Your task to perform on an android device: turn off picture-in-picture Image 0: 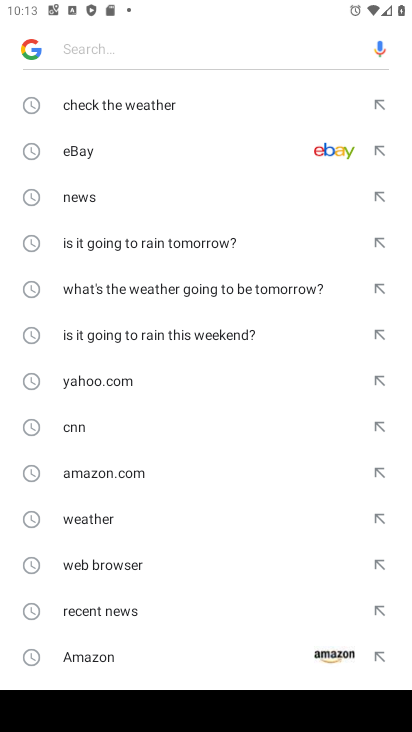
Step 0: press home button
Your task to perform on an android device: turn off picture-in-picture Image 1: 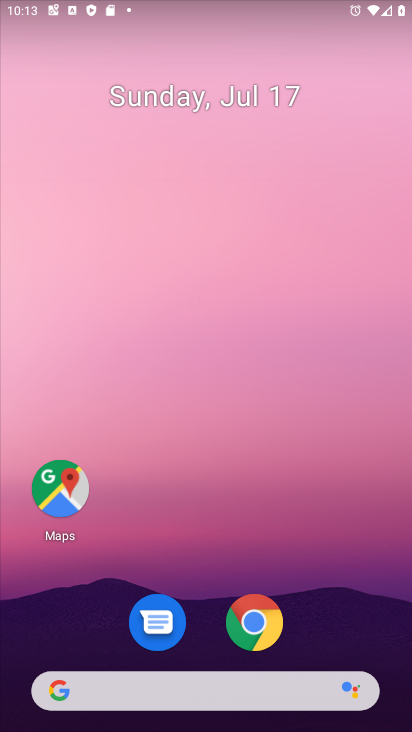
Step 1: click (269, 621)
Your task to perform on an android device: turn off picture-in-picture Image 2: 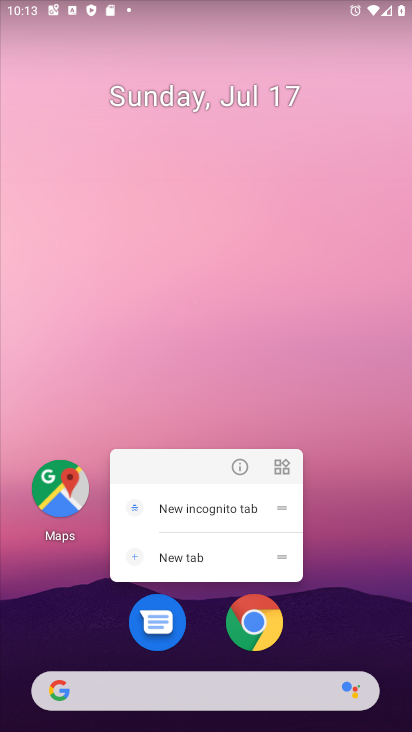
Step 2: click (241, 462)
Your task to perform on an android device: turn off picture-in-picture Image 3: 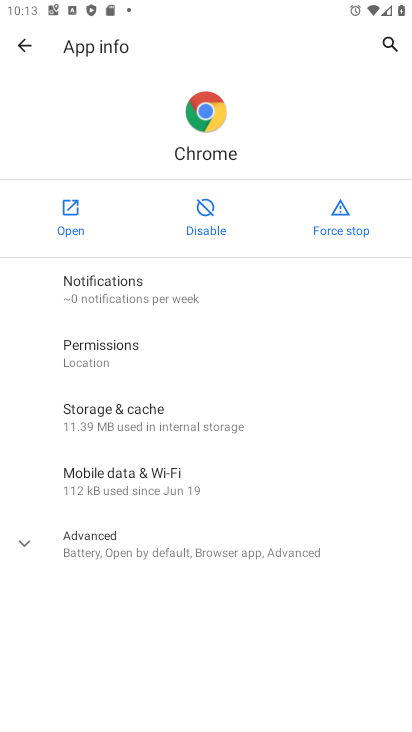
Step 3: click (111, 549)
Your task to perform on an android device: turn off picture-in-picture Image 4: 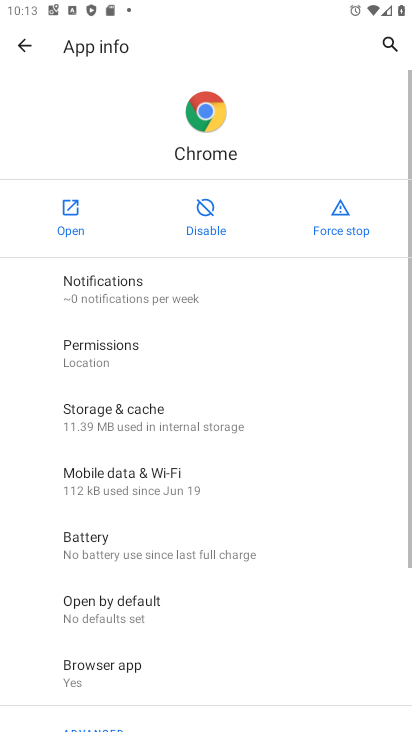
Step 4: drag from (324, 666) to (408, 442)
Your task to perform on an android device: turn off picture-in-picture Image 5: 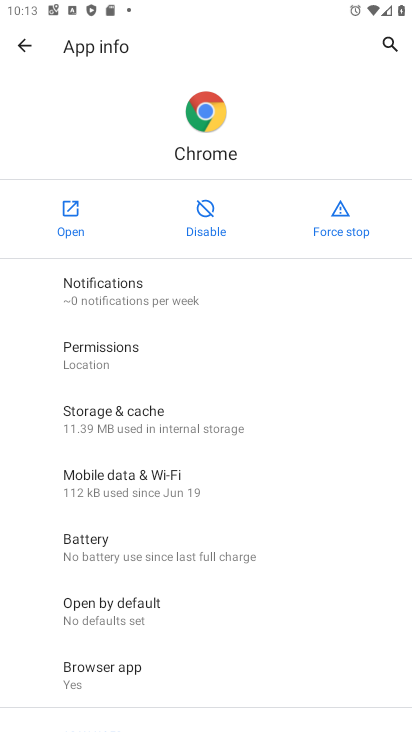
Step 5: drag from (301, 625) to (273, 13)
Your task to perform on an android device: turn off picture-in-picture Image 6: 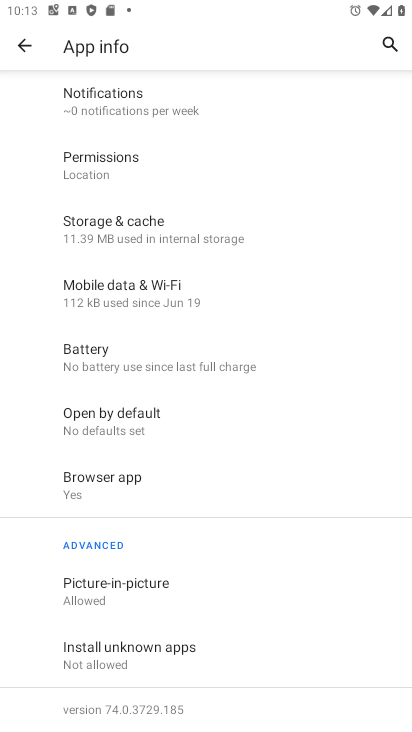
Step 6: click (120, 592)
Your task to perform on an android device: turn off picture-in-picture Image 7: 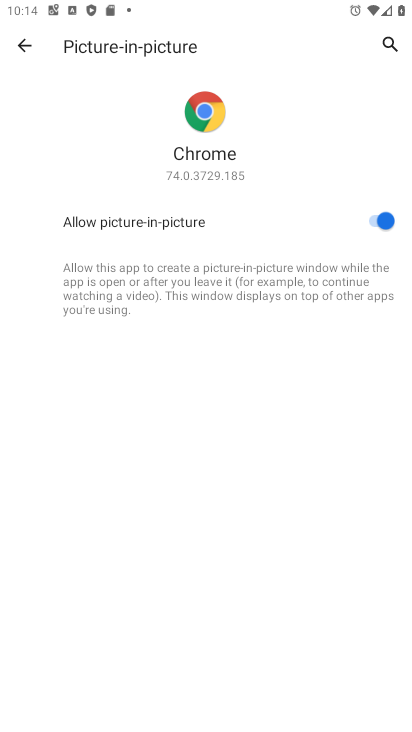
Step 7: click (387, 218)
Your task to perform on an android device: turn off picture-in-picture Image 8: 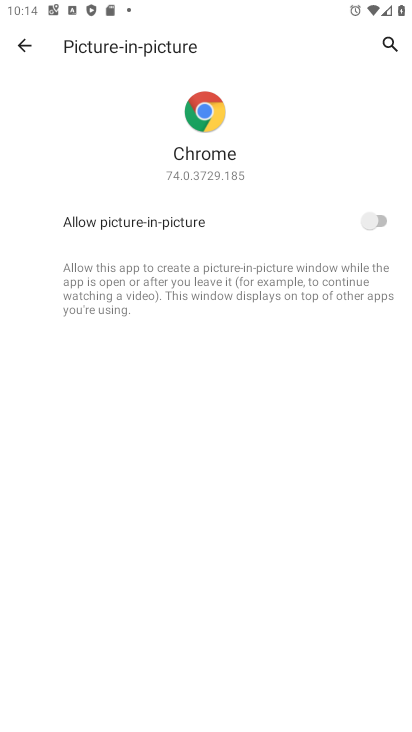
Step 8: task complete